Your task to perform on an android device: What's the weather? Image 0: 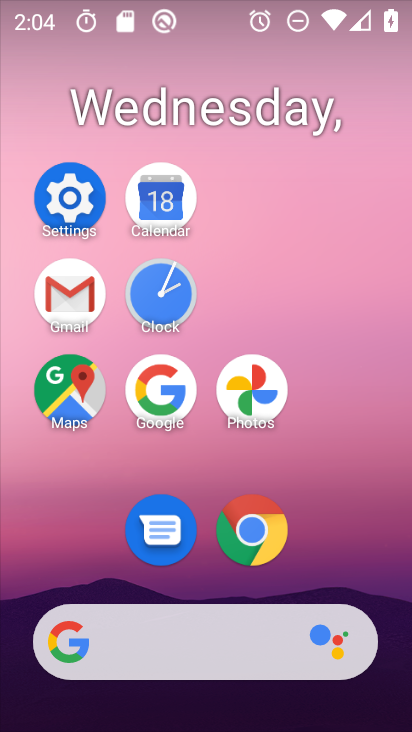
Step 0: click (164, 387)
Your task to perform on an android device: What's the weather? Image 1: 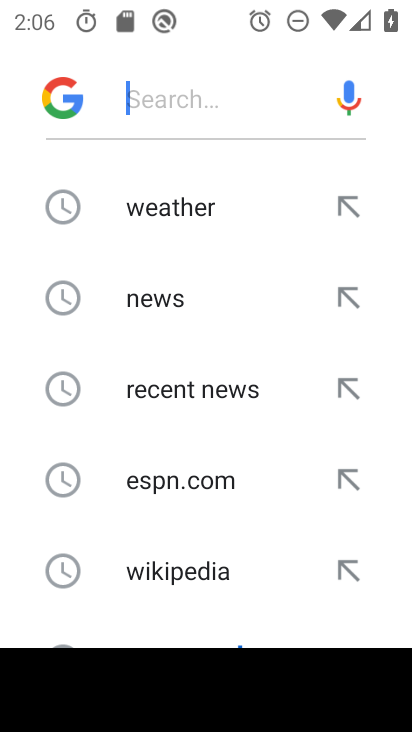
Step 1: click (205, 219)
Your task to perform on an android device: What's the weather? Image 2: 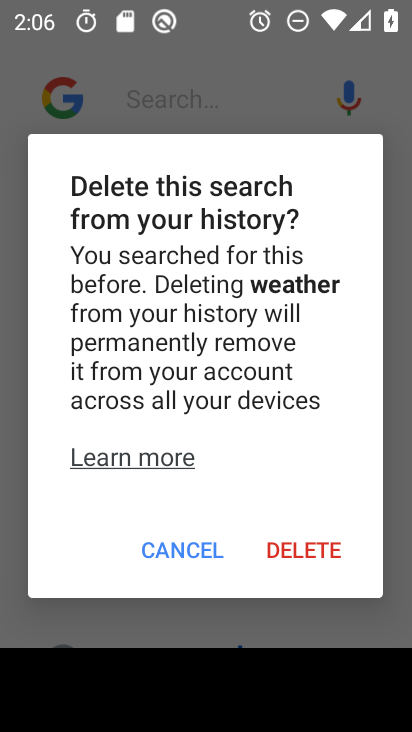
Step 2: click (209, 557)
Your task to perform on an android device: What's the weather? Image 3: 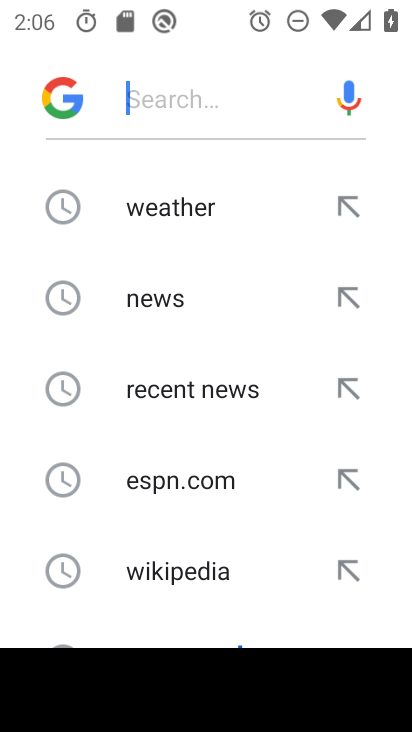
Step 3: click (163, 203)
Your task to perform on an android device: What's the weather? Image 4: 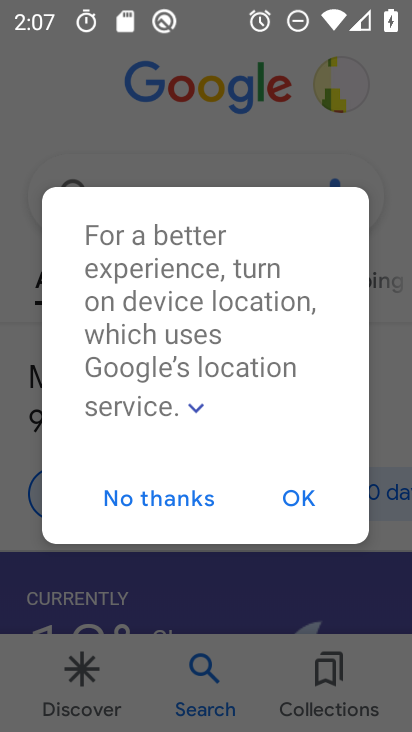
Step 4: click (312, 490)
Your task to perform on an android device: What's the weather? Image 5: 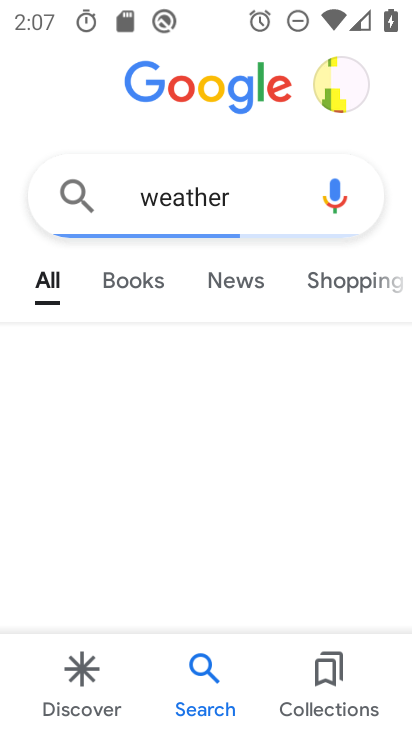
Step 5: task complete